Your task to perform on an android device: set default search engine in the chrome app Image 0: 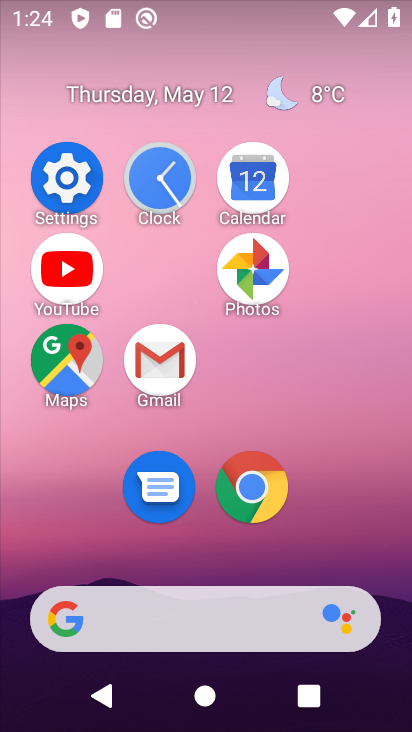
Step 0: click (237, 486)
Your task to perform on an android device: set default search engine in the chrome app Image 1: 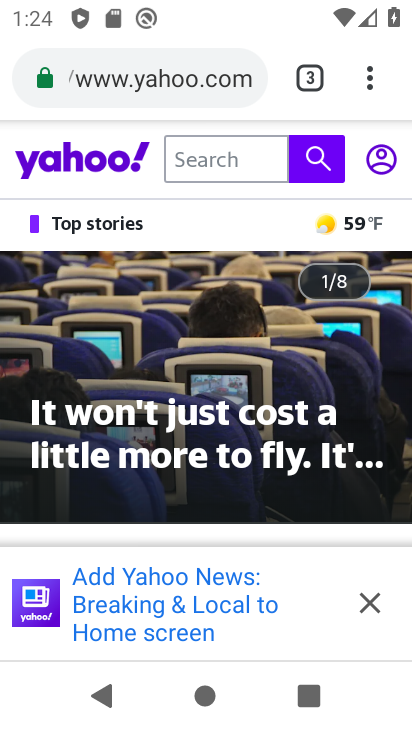
Step 1: click (376, 89)
Your task to perform on an android device: set default search engine in the chrome app Image 2: 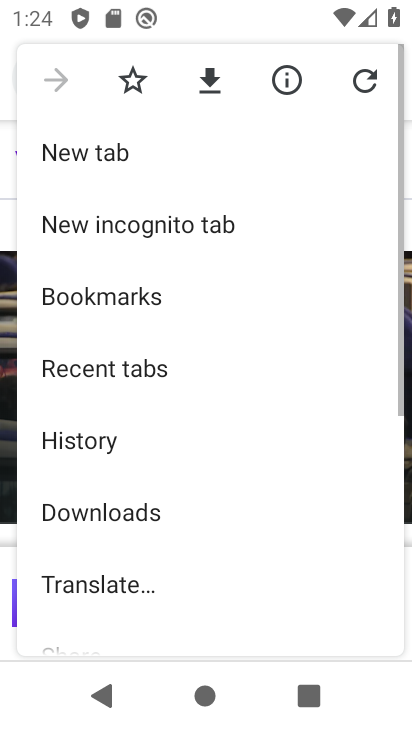
Step 2: drag from (258, 566) to (268, 178)
Your task to perform on an android device: set default search engine in the chrome app Image 3: 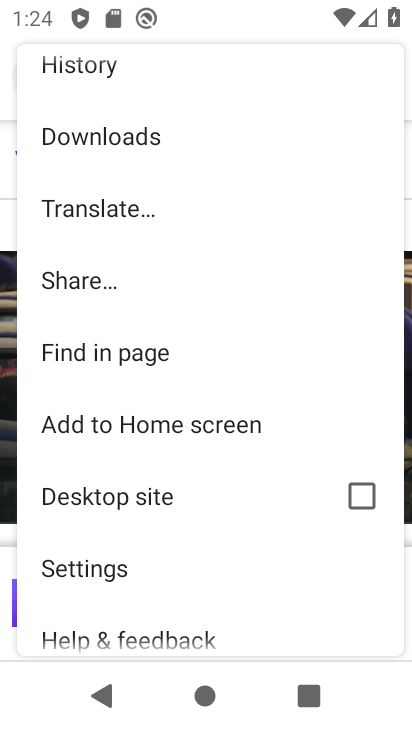
Step 3: click (183, 563)
Your task to perform on an android device: set default search engine in the chrome app Image 4: 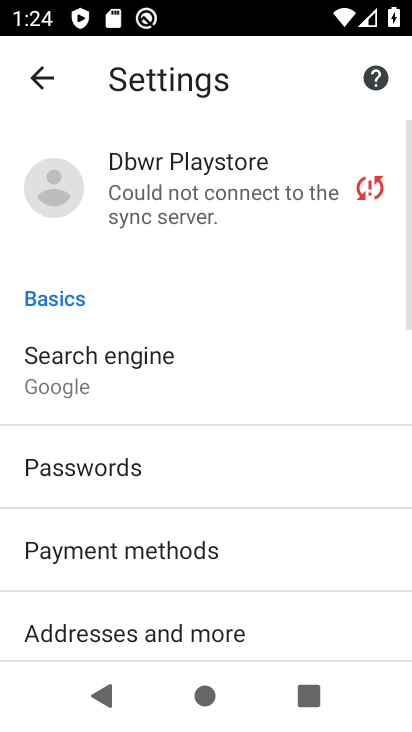
Step 4: click (201, 387)
Your task to perform on an android device: set default search engine in the chrome app Image 5: 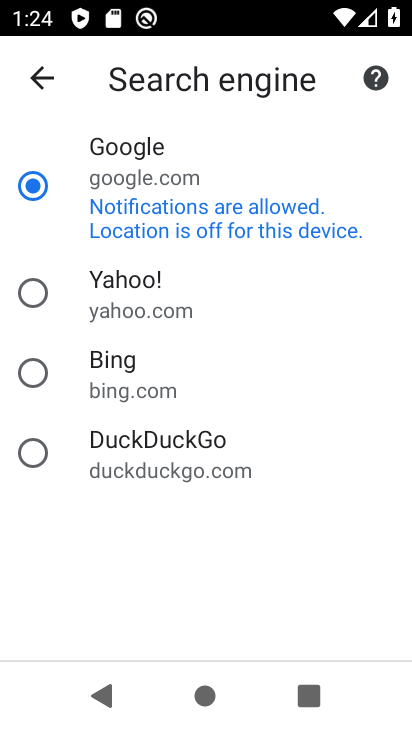
Step 5: task complete